Your task to perform on an android device: Open my contact list Image 0: 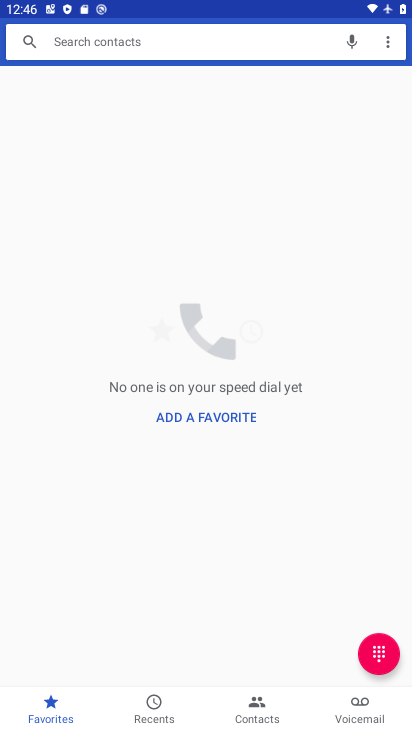
Step 0: press home button
Your task to perform on an android device: Open my contact list Image 1: 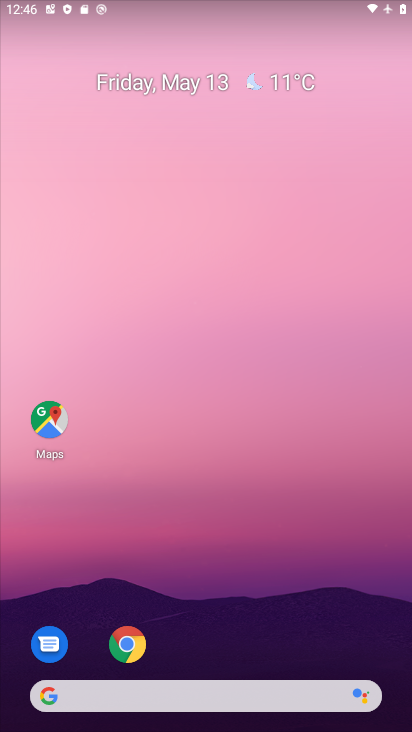
Step 1: drag from (242, 719) to (254, 285)
Your task to perform on an android device: Open my contact list Image 2: 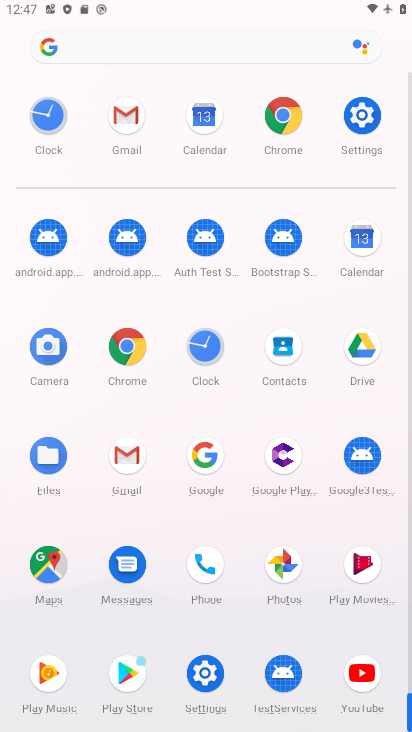
Step 2: click (284, 350)
Your task to perform on an android device: Open my contact list Image 3: 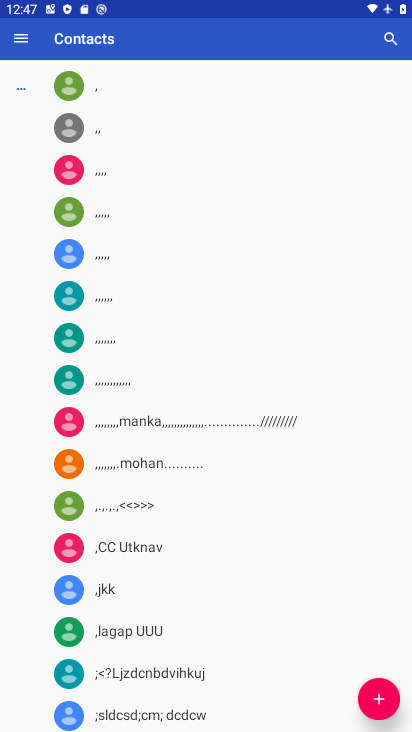
Step 3: task complete